Your task to perform on an android device: set default search engine in the chrome app Image 0: 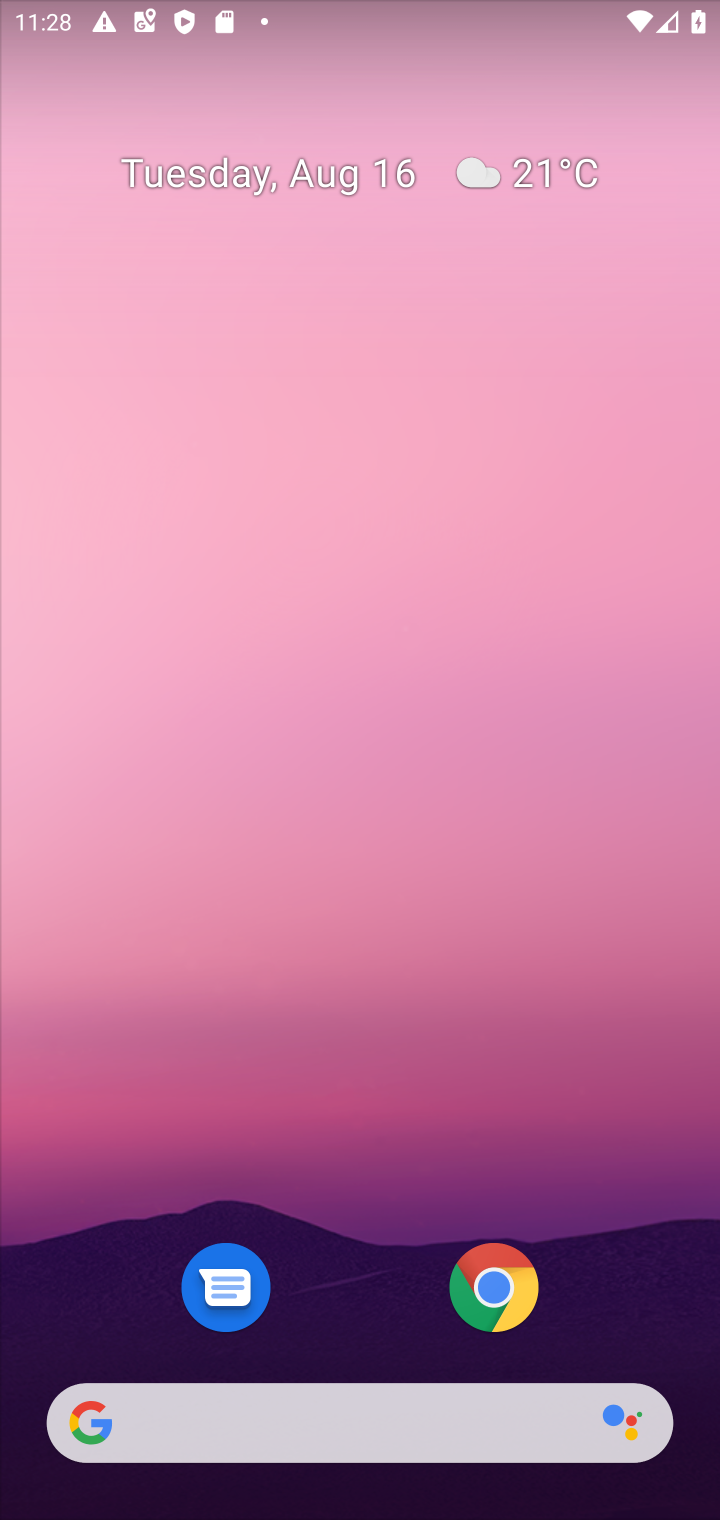
Step 0: click (493, 1290)
Your task to perform on an android device: set default search engine in the chrome app Image 1: 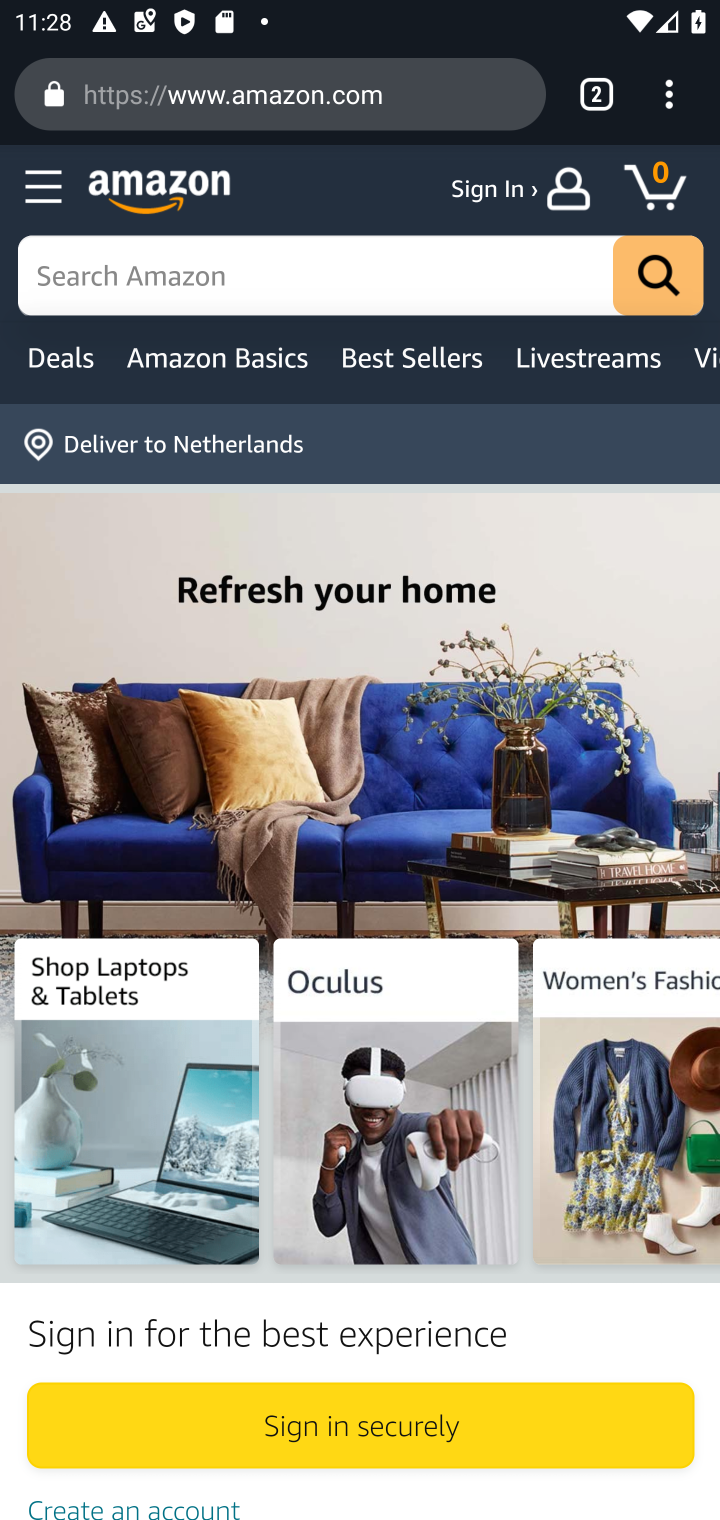
Step 1: click (661, 108)
Your task to perform on an android device: set default search engine in the chrome app Image 2: 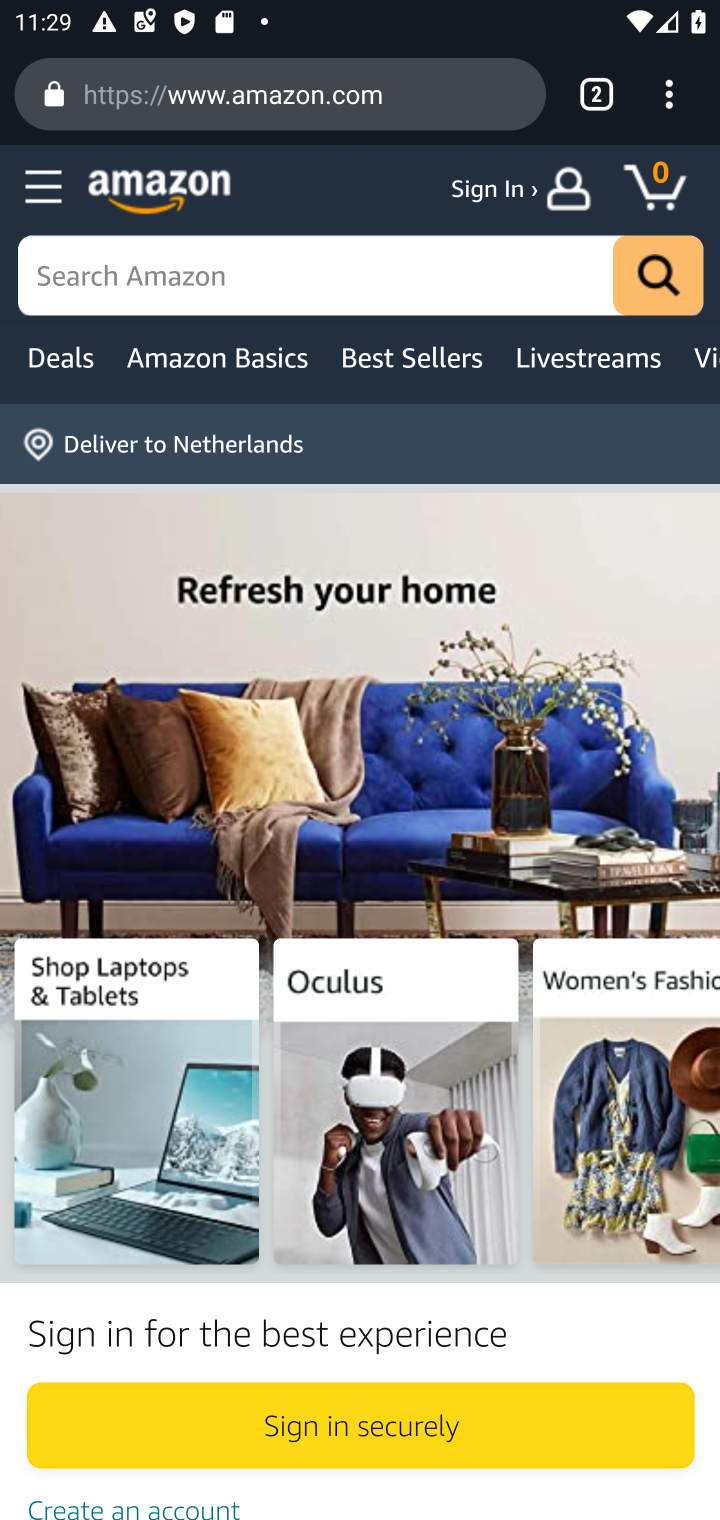
Step 2: click (656, 109)
Your task to perform on an android device: set default search engine in the chrome app Image 3: 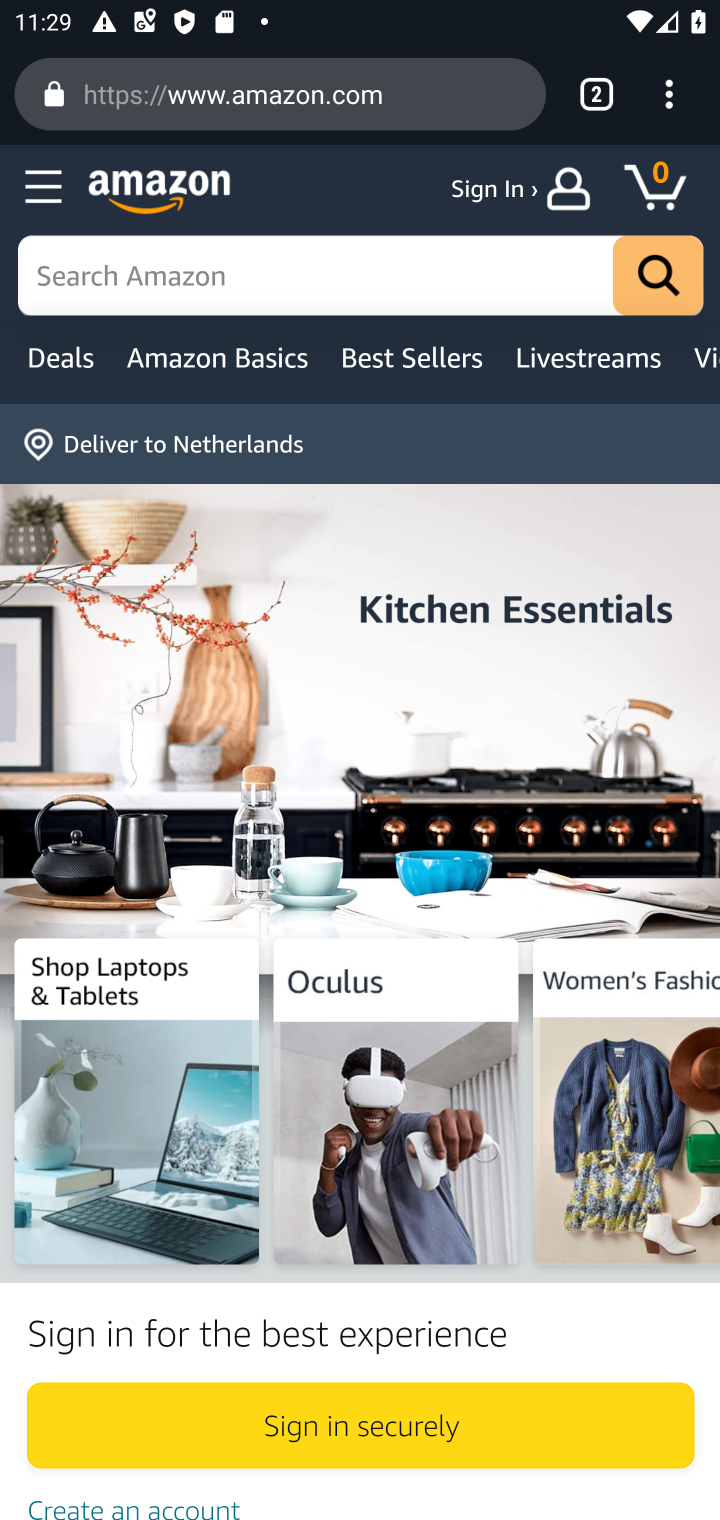
Step 3: click (657, 109)
Your task to perform on an android device: set default search engine in the chrome app Image 4: 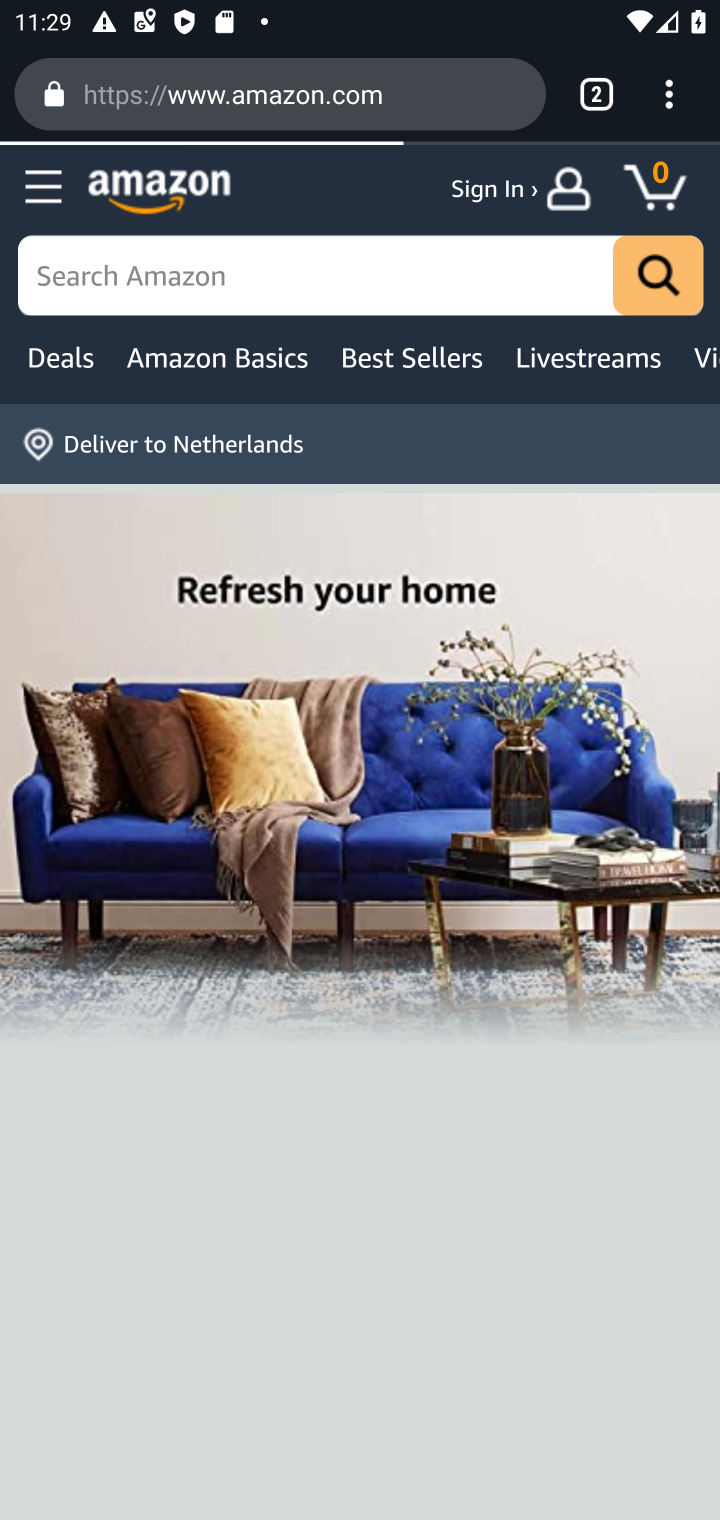
Step 4: click (663, 117)
Your task to perform on an android device: set default search engine in the chrome app Image 5: 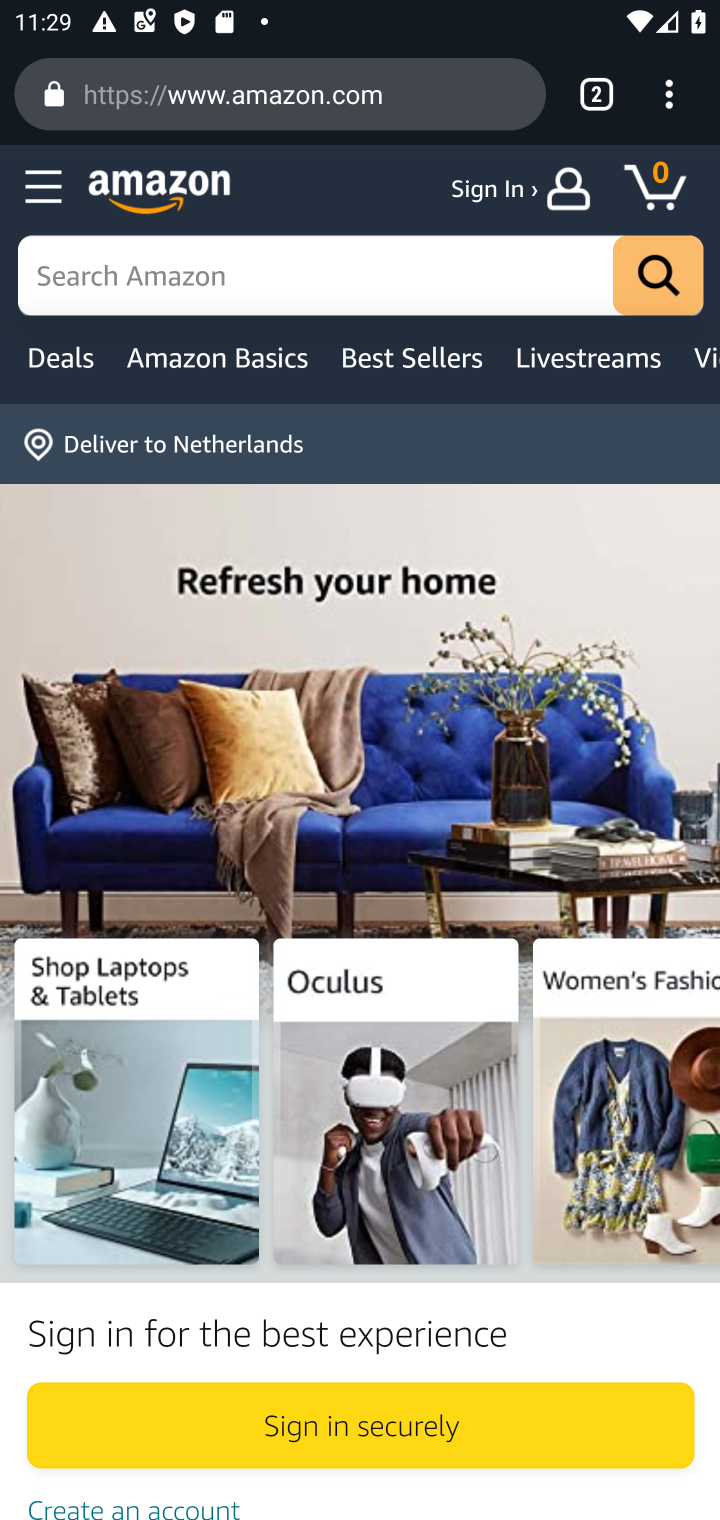
Step 5: click (650, 95)
Your task to perform on an android device: set default search engine in the chrome app Image 6: 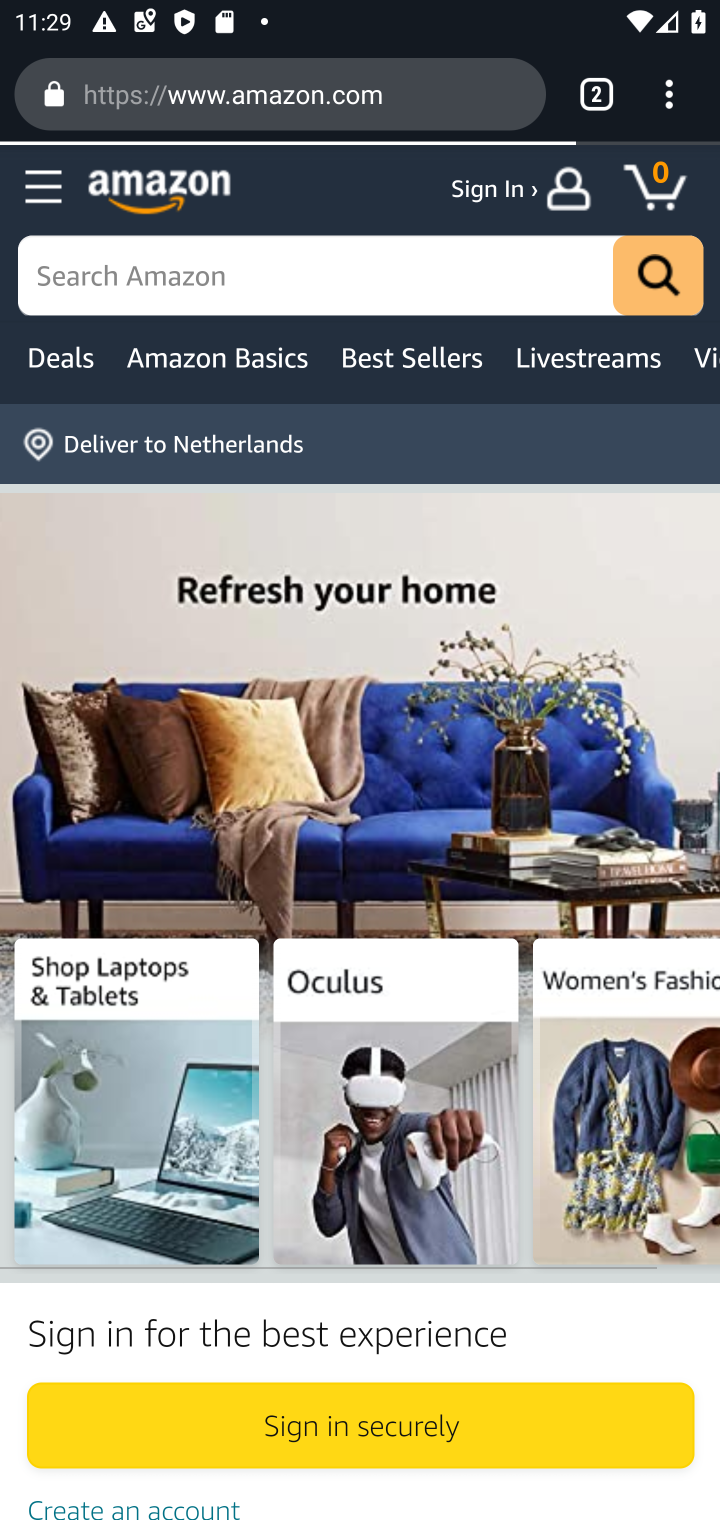
Step 6: click (653, 109)
Your task to perform on an android device: set default search engine in the chrome app Image 7: 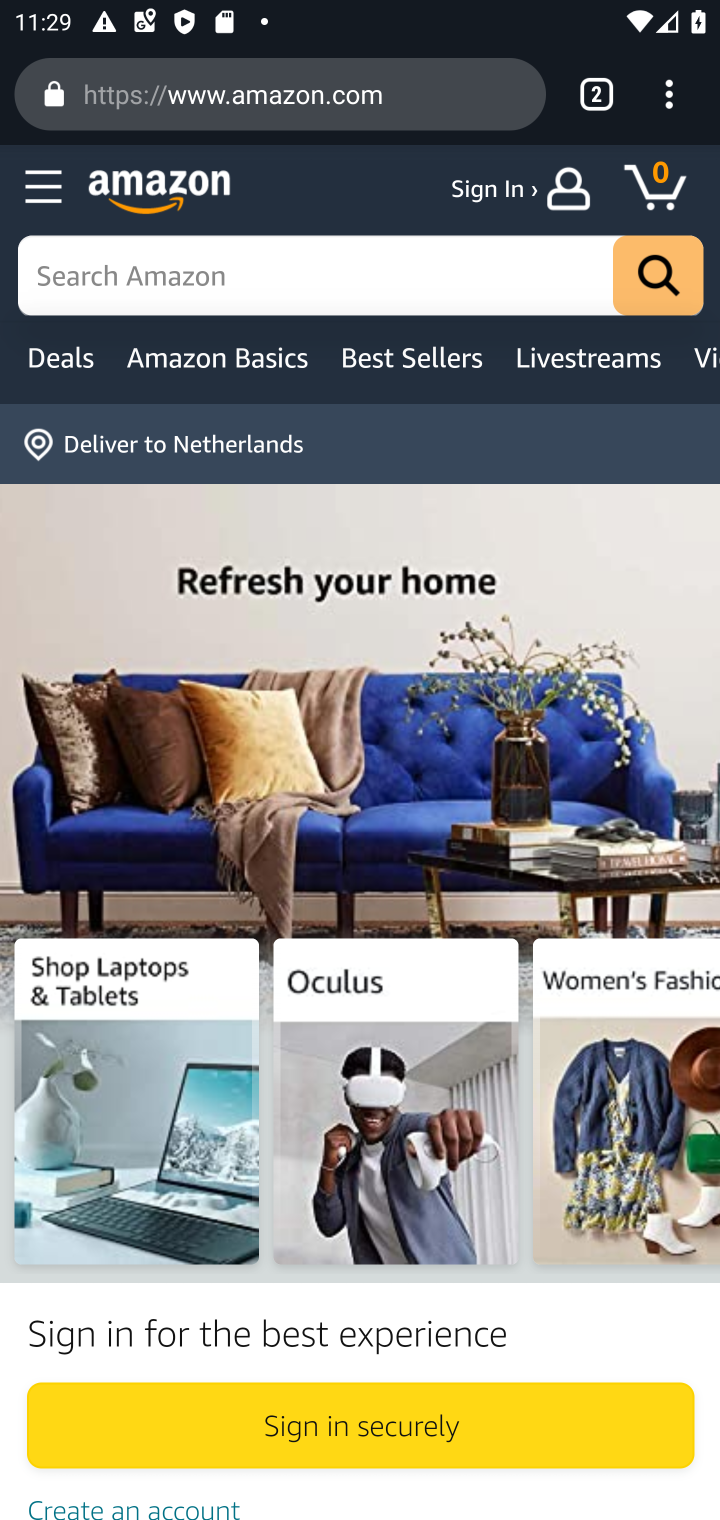
Step 7: task complete